Your task to perform on an android device: turn off notifications in google photos Image 0: 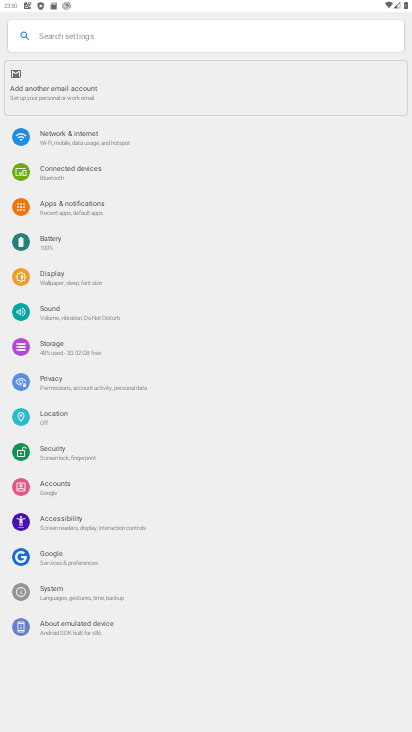
Step 0: press home button
Your task to perform on an android device: turn off notifications in google photos Image 1: 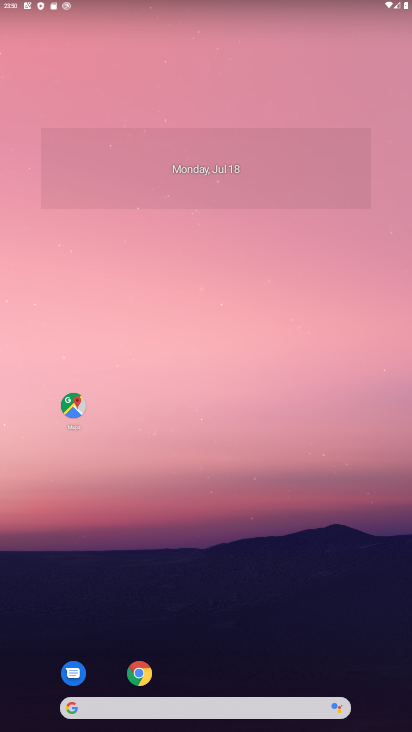
Step 1: drag from (243, 591) to (267, 115)
Your task to perform on an android device: turn off notifications in google photos Image 2: 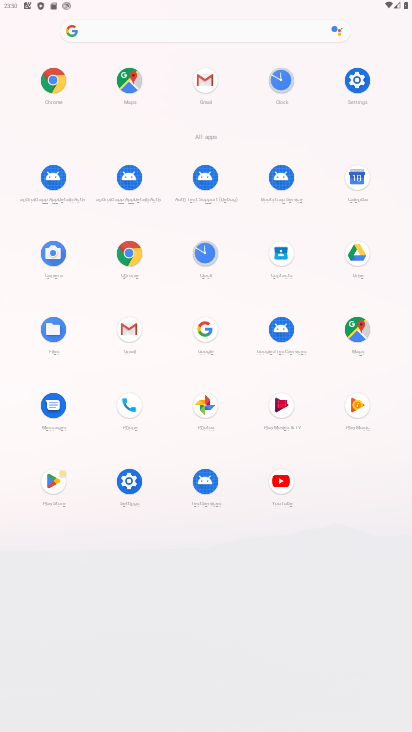
Step 2: click (201, 399)
Your task to perform on an android device: turn off notifications in google photos Image 3: 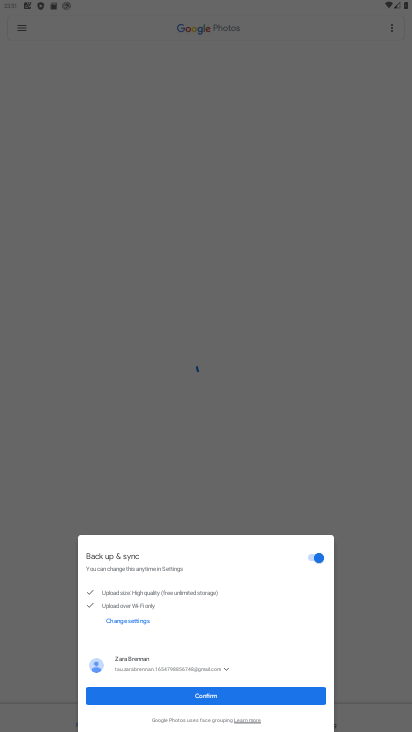
Step 3: click (220, 692)
Your task to perform on an android device: turn off notifications in google photos Image 4: 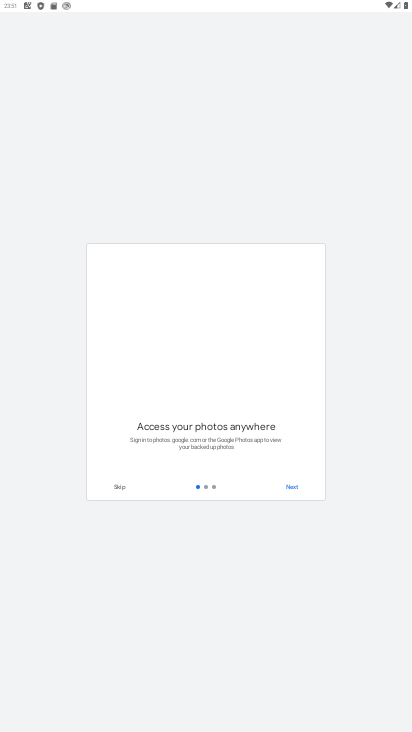
Step 4: click (295, 478)
Your task to perform on an android device: turn off notifications in google photos Image 5: 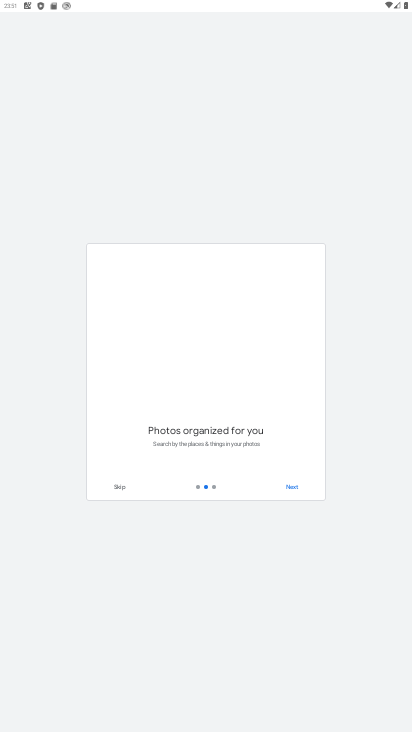
Step 5: click (286, 495)
Your task to perform on an android device: turn off notifications in google photos Image 6: 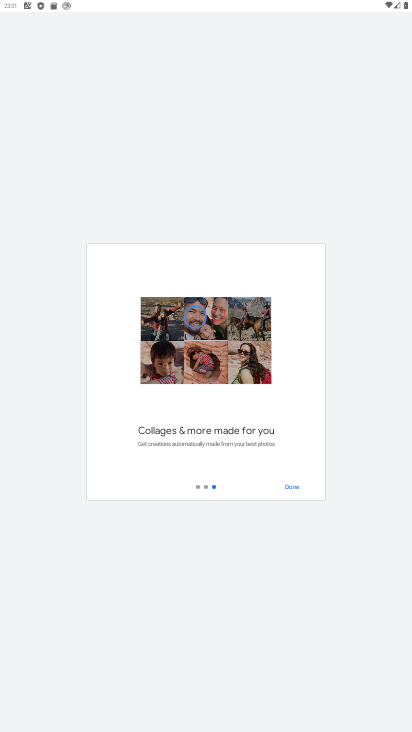
Step 6: click (296, 491)
Your task to perform on an android device: turn off notifications in google photos Image 7: 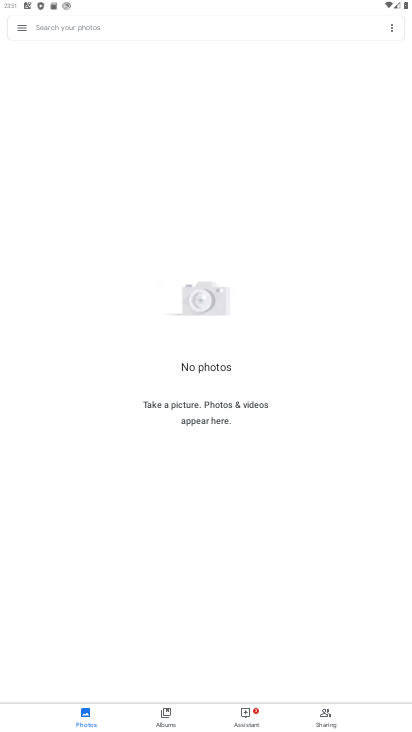
Step 7: click (13, 27)
Your task to perform on an android device: turn off notifications in google photos Image 8: 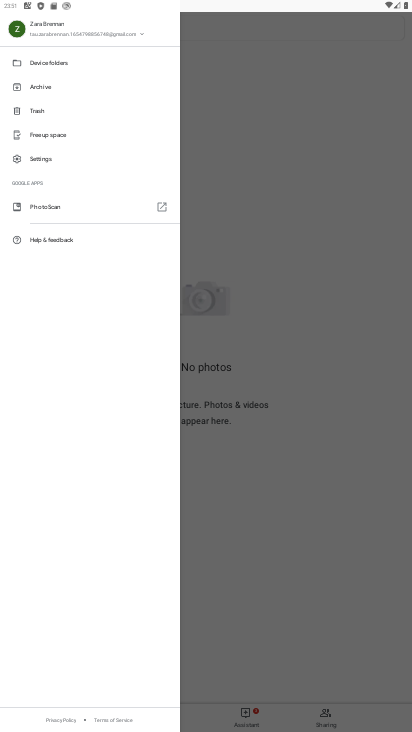
Step 8: click (41, 153)
Your task to perform on an android device: turn off notifications in google photos Image 9: 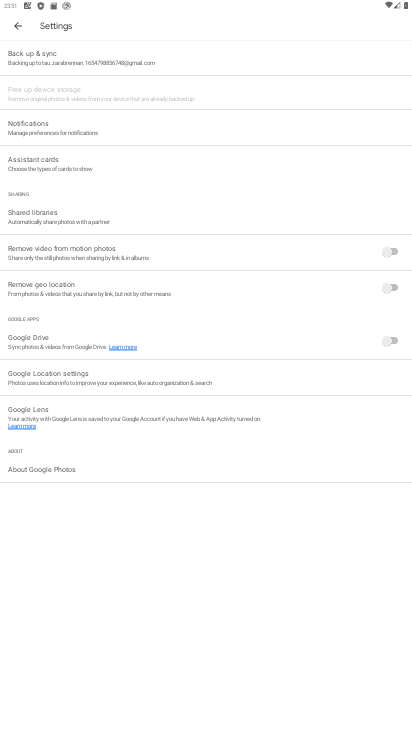
Step 9: click (87, 113)
Your task to perform on an android device: turn off notifications in google photos Image 10: 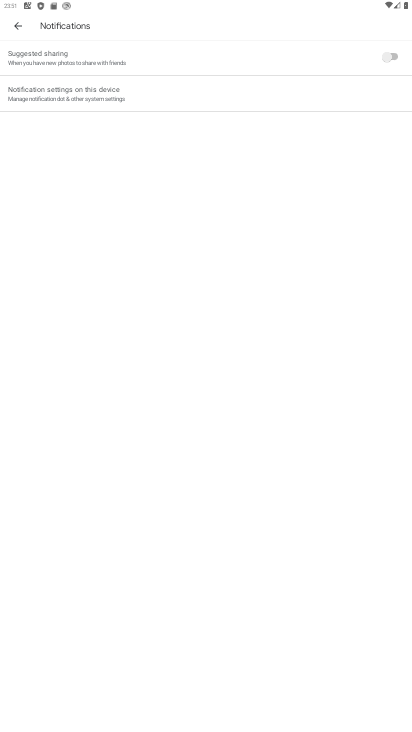
Step 10: click (192, 111)
Your task to perform on an android device: turn off notifications in google photos Image 11: 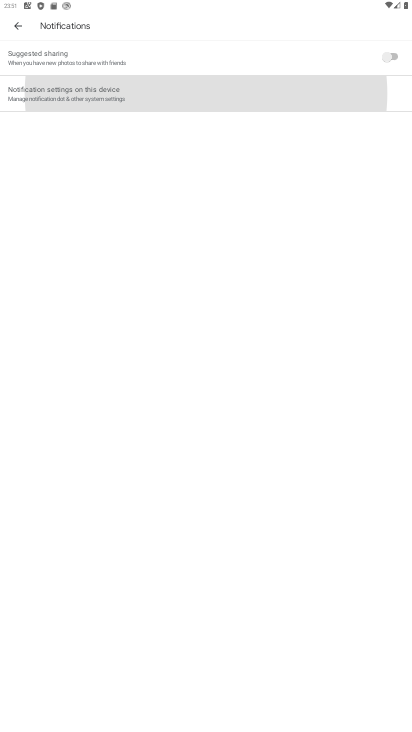
Step 11: click (192, 101)
Your task to perform on an android device: turn off notifications in google photos Image 12: 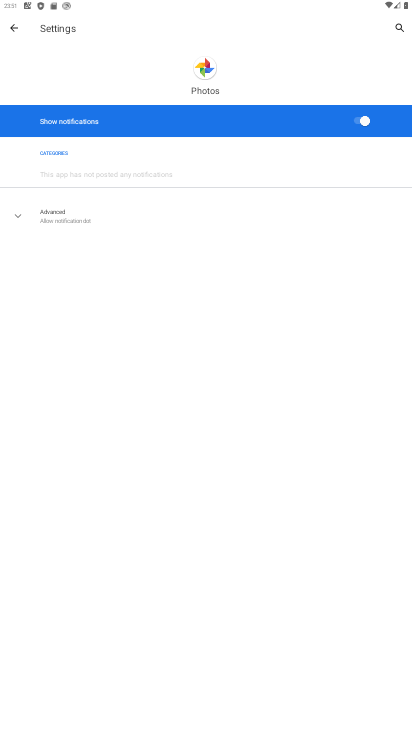
Step 12: click (361, 117)
Your task to perform on an android device: turn off notifications in google photos Image 13: 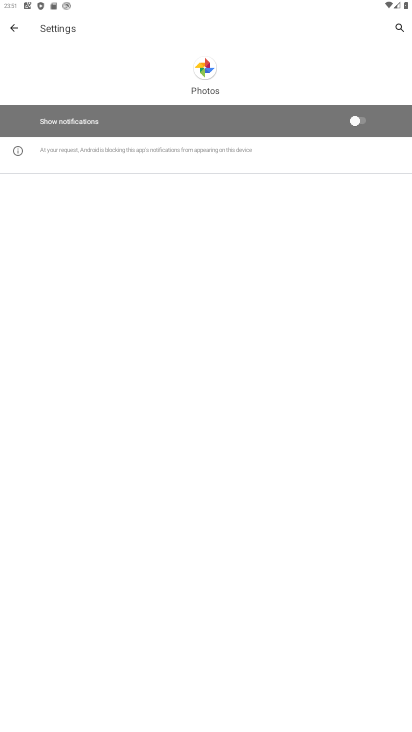
Step 13: task complete